Your task to perform on an android device: Open my contact list Image 0: 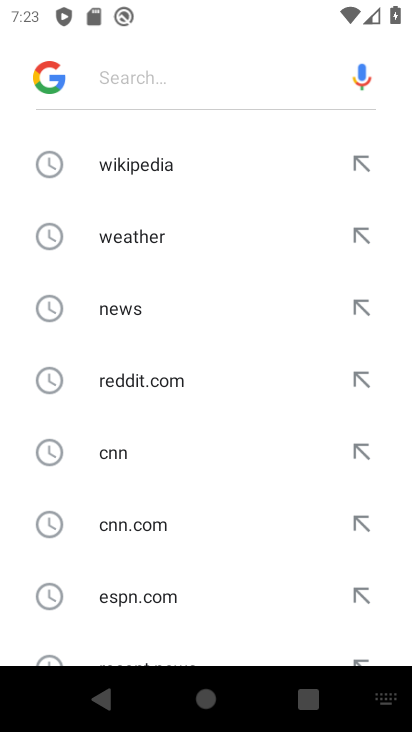
Step 0: press home button
Your task to perform on an android device: Open my contact list Image 1: 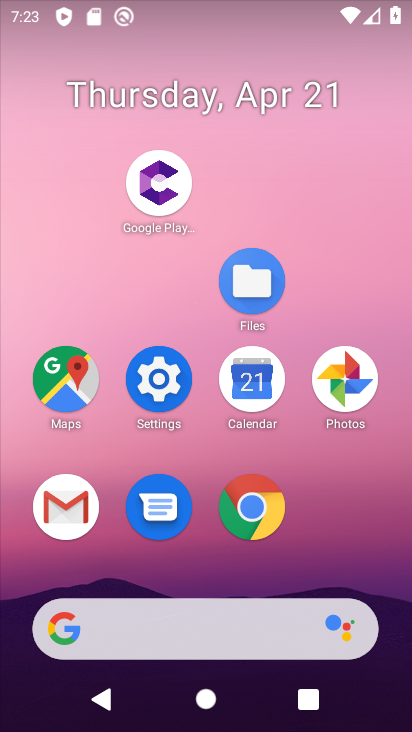
Step 1: drag from (316, 512) to (239, 9)
Your task to perform on an android device: Open my contact list Image 2: 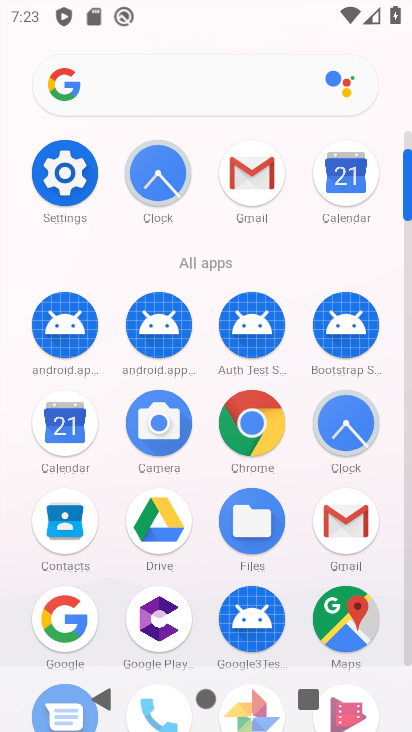
Step 2: click (63, 521)
Your task to perform on an android device: Open my contact list Image 3: 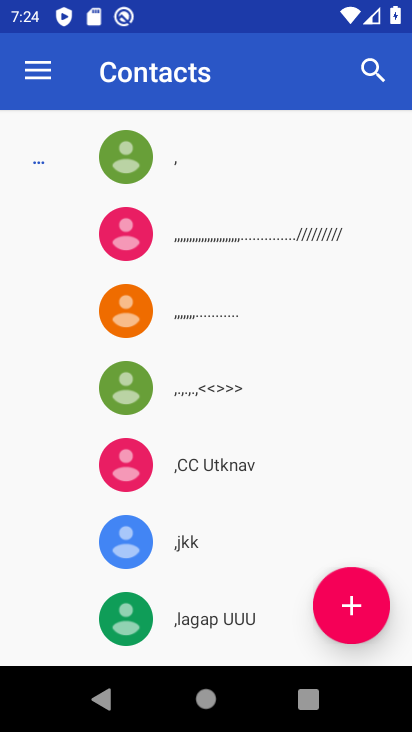
Step 3: task complete